Your task to perform on an android device: Open calendar and show me the third week of next month Image 0: 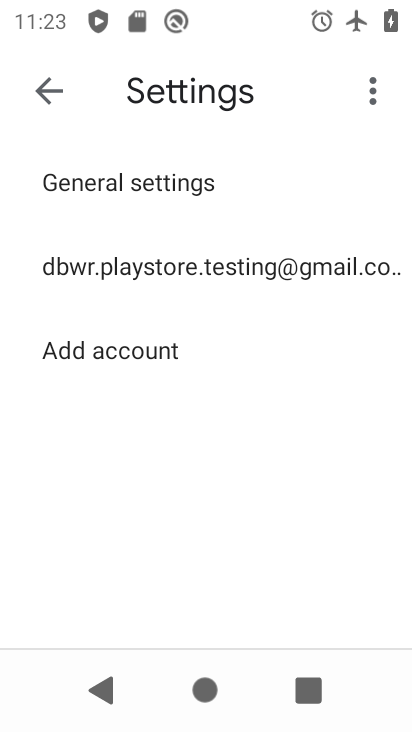
Step 0: press home button
Your task to perform on an android device: Open calendar and show me the third week of next month Image 1: 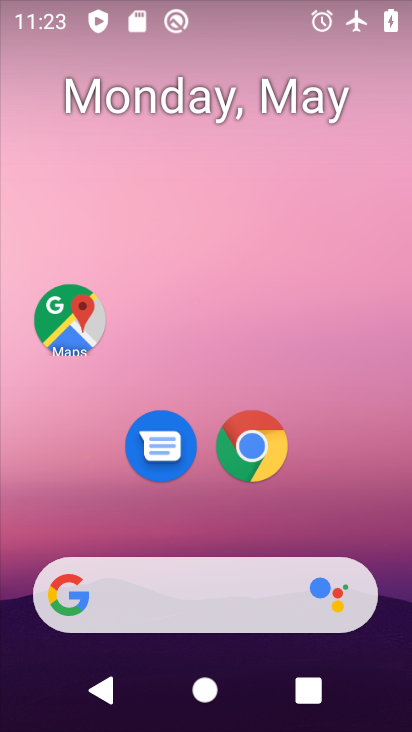
Step 1: drag from (268, 496) to (309, 134)
Your task to perform on an android device: Open calendar and show me the third week of next month Image 2: 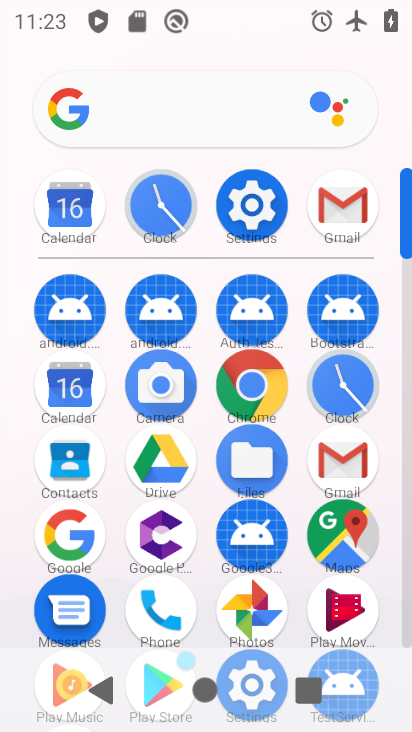
Step 2: click (78, 215)
Your task to perform on an android device: Open calendar and show me the third week of next month Image 3: 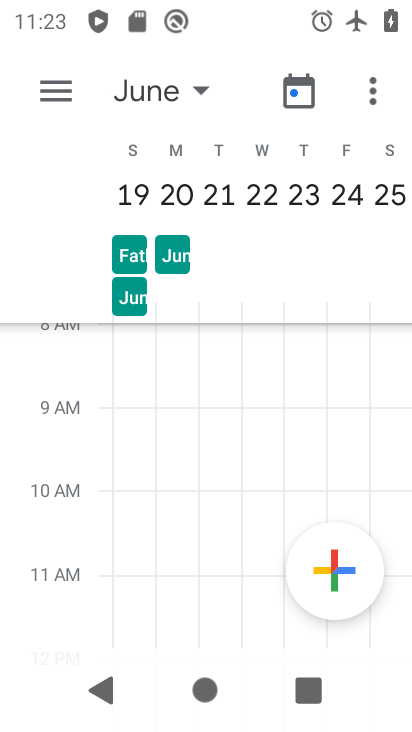
Step 3: click (168, 100)
Your task to perform on an android device: Open calendar and show me the third week of next month Image 4: 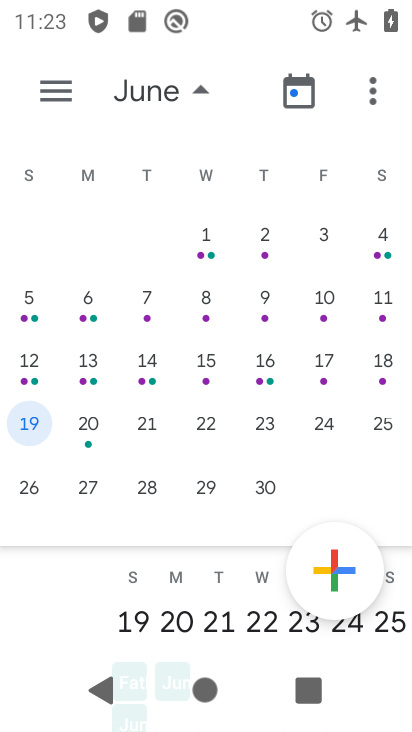
Step 4: click (32, 376)
Your task to perform on an android device: Open calendar and show me the third week of next month Image 5: 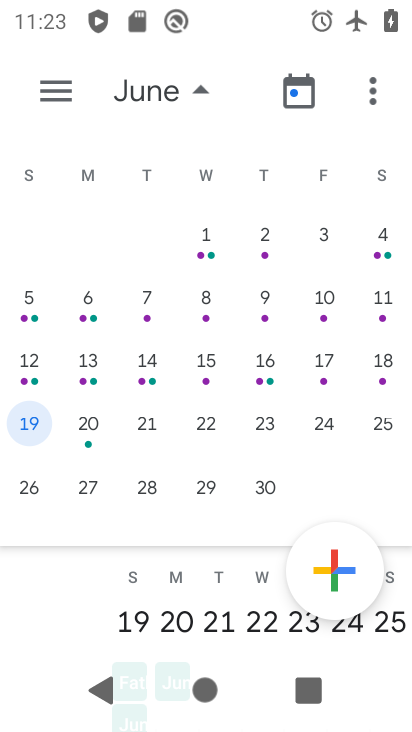
Step 5: click (29, 362)
Your task to perform on an android device: Open calendar and show me the third week of next month Image 6: 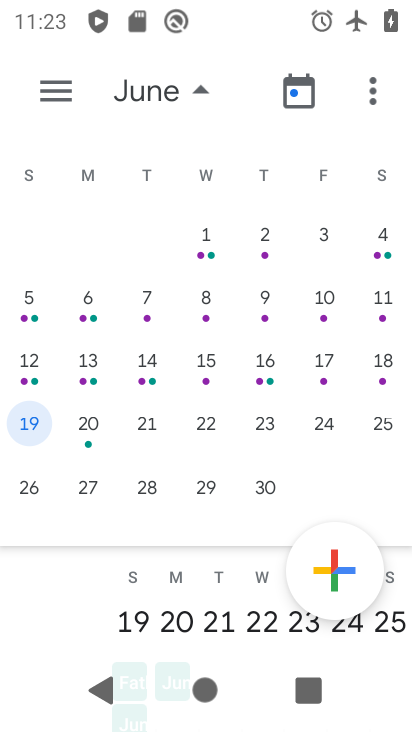
Step 6: click (42, 353)
Your task to perform on an android device: Open calendar and show me the third week of next month Image 7: 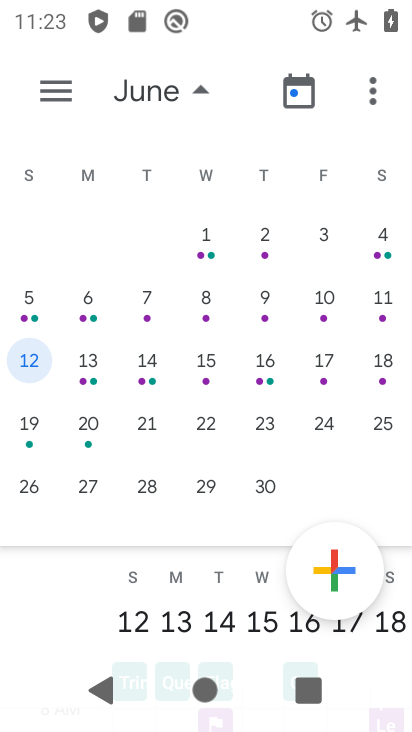
Step 7: click (177, 97)
Your task to perform on an android device: Open calendar and show me the third week of next month Image 8: 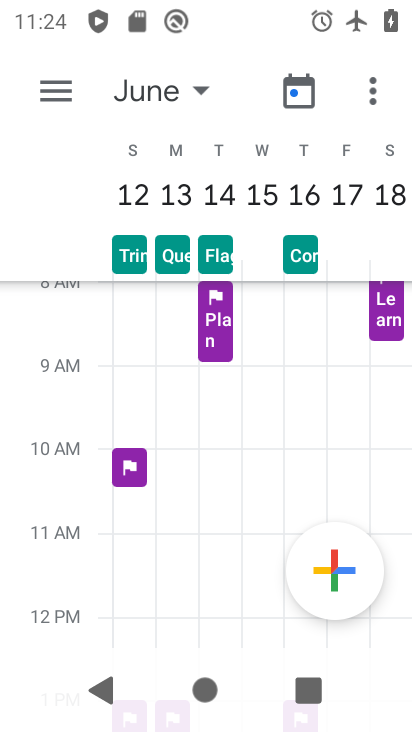
Step 8: task complete